Your task to perform on an android device: star an email in the gmail app Image 0: 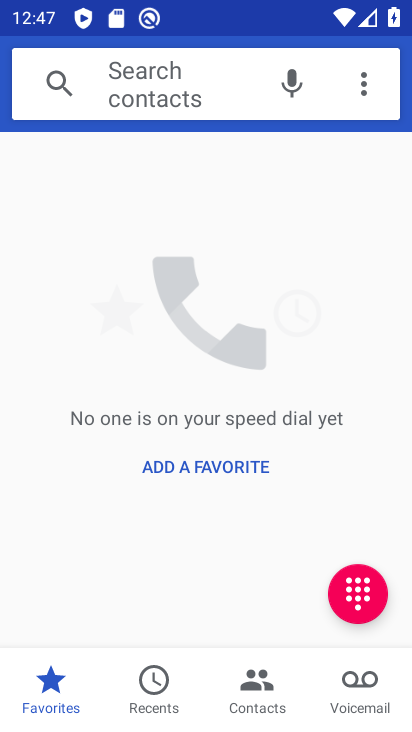
Step 0: press home button
Your task to perform on an android device: star an email in the gmail app Image 1: 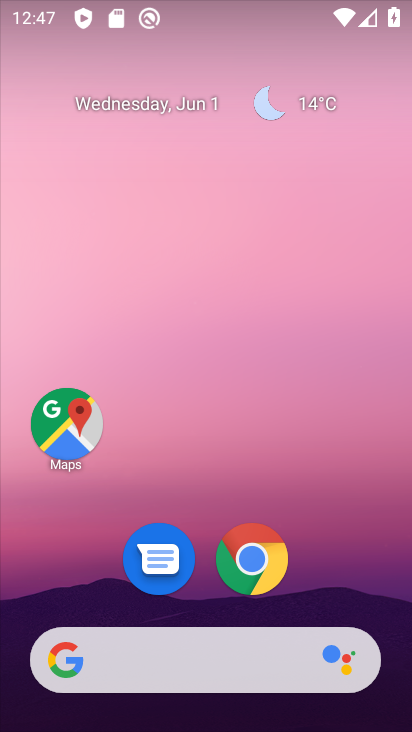
Step 1: drag from (395, 704) to (354, 102)
Your task to perform on an android device: star an email in the gmail app Image 2: 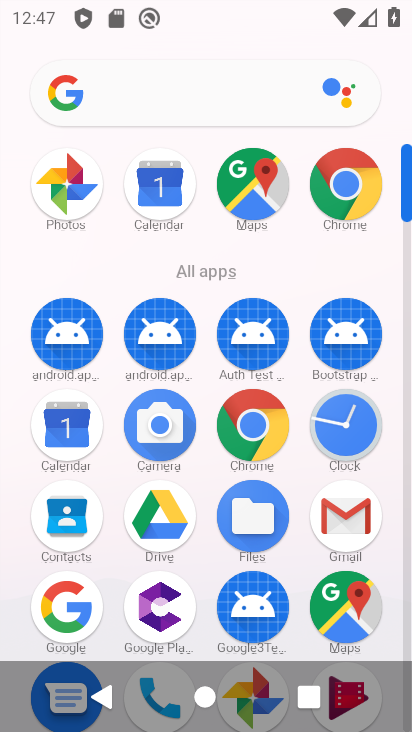
Step 2: click (336, 523)
Your task to perform on an android device: star an email in the gmail app Image 3: 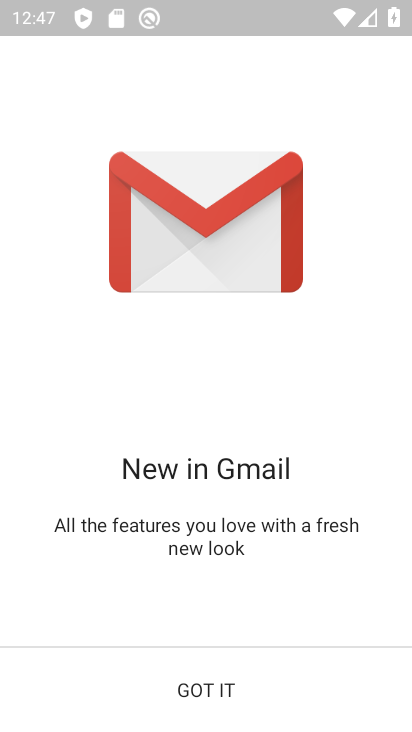
Step 3: click (216, 679)
Your task to perform on an android device: star an email in the gmail app Image 4: 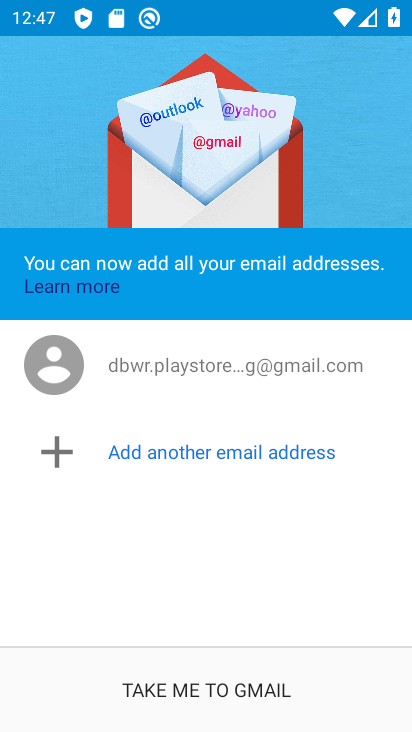
Step 4: click (174, 689)
Your task to perform on an android device: star an email in the gmail app Image 5: 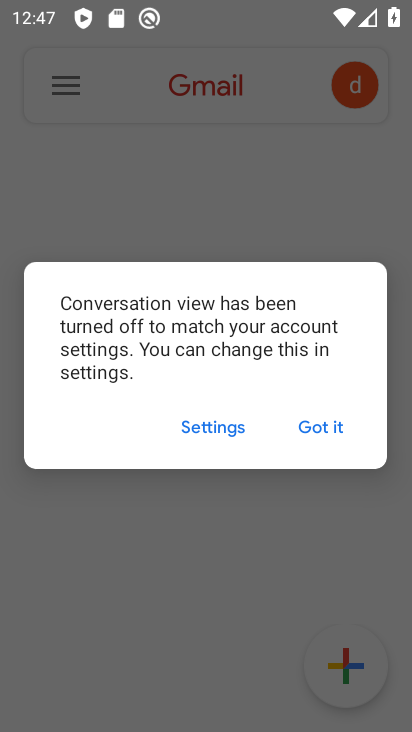
Step 5: click (328, 414)
Your task to perform on an android device: star an email in the gmail app Image 6: 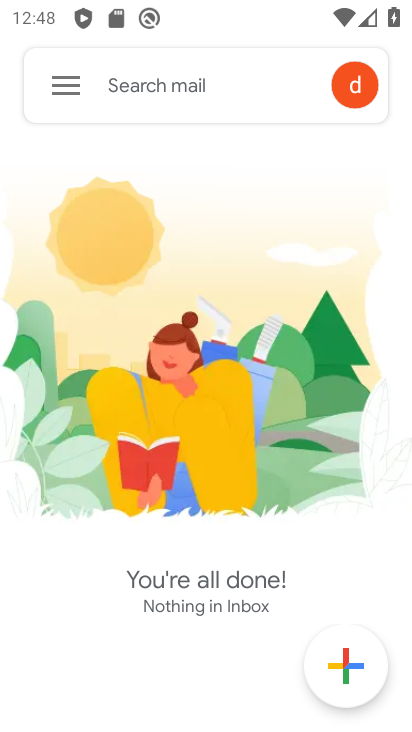
Step 6: click (70, 87)
Your task to perform on an android device: star an email in the gmail app Image 7: 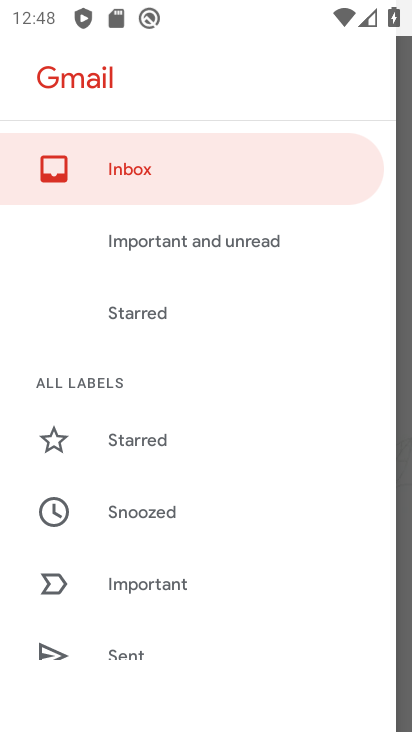
Step 7: drag from (275, 592) to (261, 308)
Your task to perform on an android device: star an email in the gmail app Image 8: 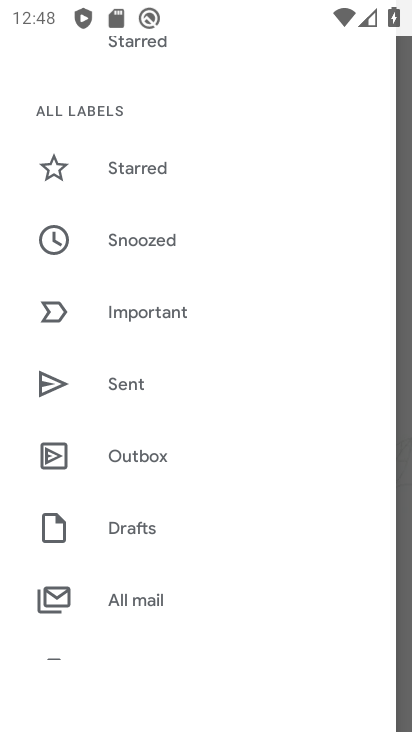
Step 8: drag from (218, 576) to (217, 265)
Your task to perform on an android device: star an email in the gmail app Image 9: 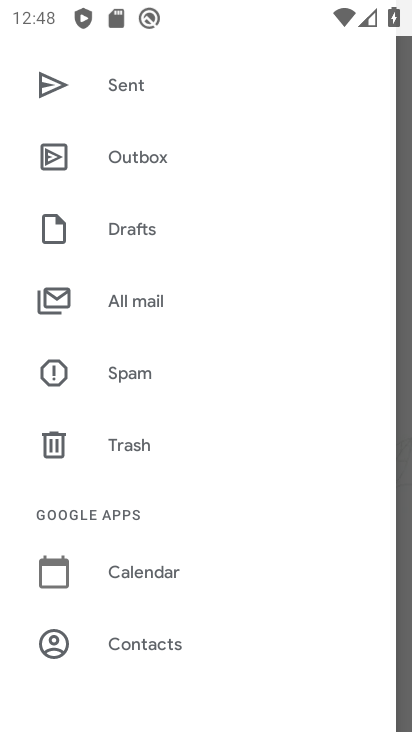
Step 9: drag from (217, 136) to (261, 562)
Your task to perform on an android device: star an email in the gmail app Image 10: 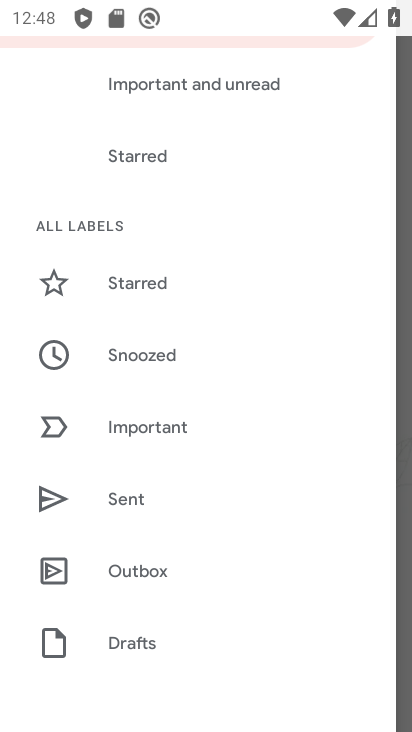
Step 10: drag from (246, 174) to (264, 619)
Your task to perform on an android device: star an email in the gmail app Image 11: 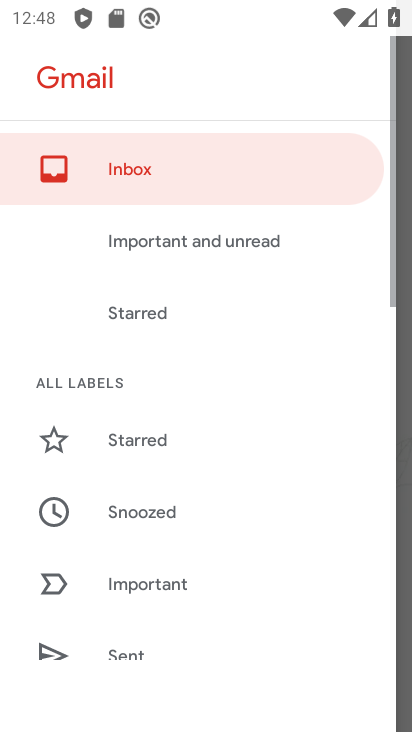
Step 11: click (123, 164)
Your task to perform on an android device: star an email in the gmail app Image 12: 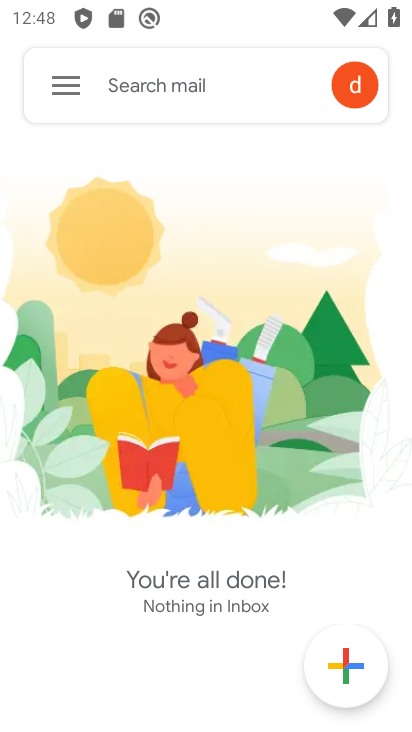
Step 12: task complete